Your task to perform on an android device: Open a new Chrome window Image 0: 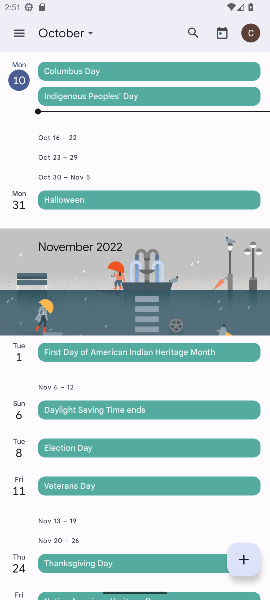
Step 0: press home button
Your task to perform on an android device: Open a new Chrome window Image 1: 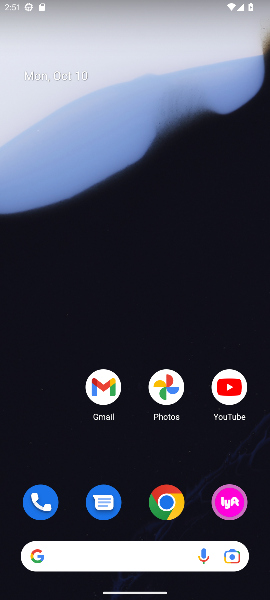
Step 1: click (161, 506)
Your task to perform on an android device: Open a new Chrome window Image 2: 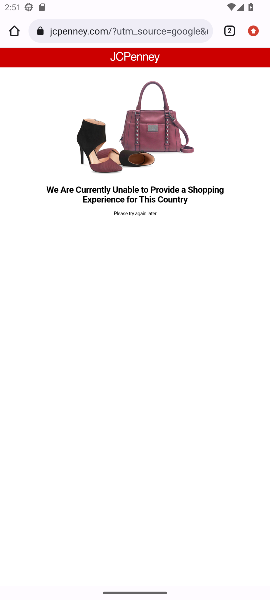
Step 2: click (252, 30)
Your task to perform on an android device: Open a new Chrome window Image 3: 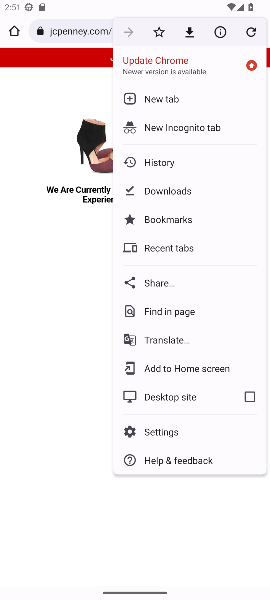
Step 3: click (194, 101)
Your task to perform on an android device: Open a new Chrome window Image 4: 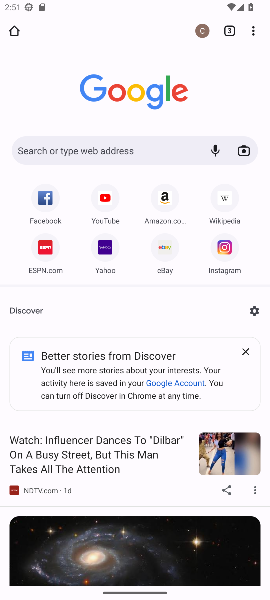
Step 4: task complete